Your task to perform on an android device: Open settings on Google Maps Image 0: 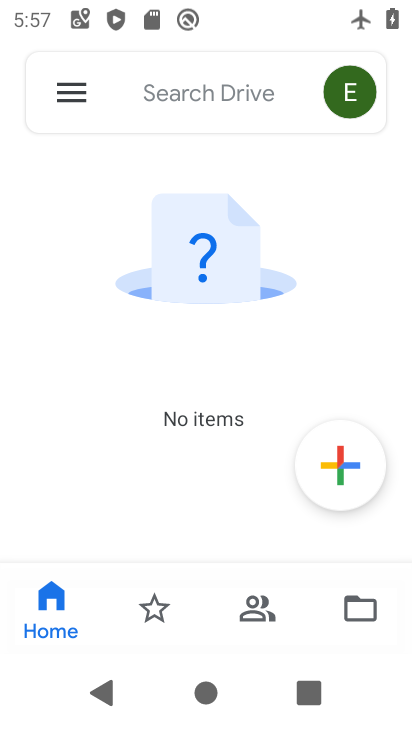
Step 0: press home button
Your task to perform on an android device: Open settings on Google Maps Image 1: 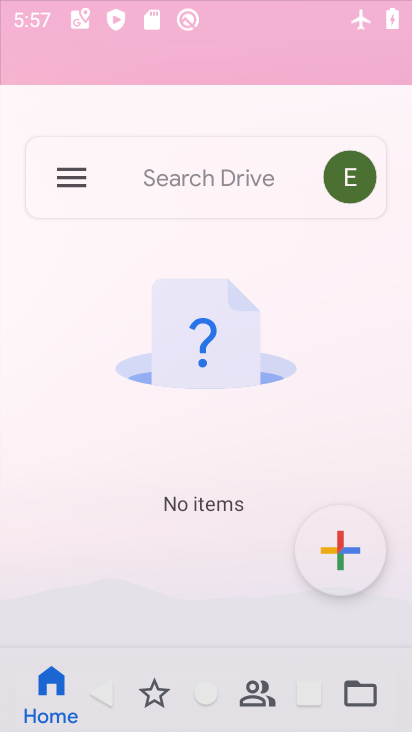
Step 1: drag from (172, 554) to (203, 92)
Your task to perform on an android device: Open settings on Google Maps Image 2: 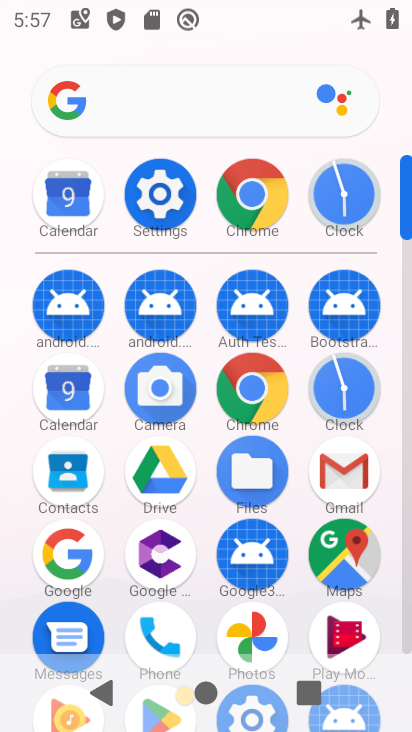
Step 2: click (331, 559)
Your task to perform on an android device: Open settings on Google Maps Image 3: 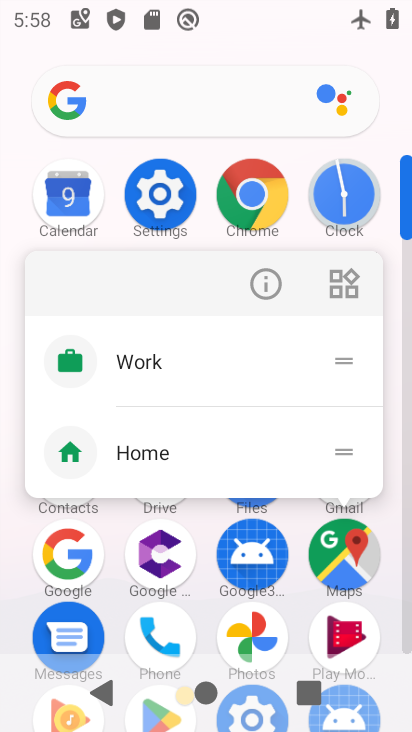
Step 3: click (255, 276)
Your task to perform on an android device: Open settings on Google Maps Image 4: 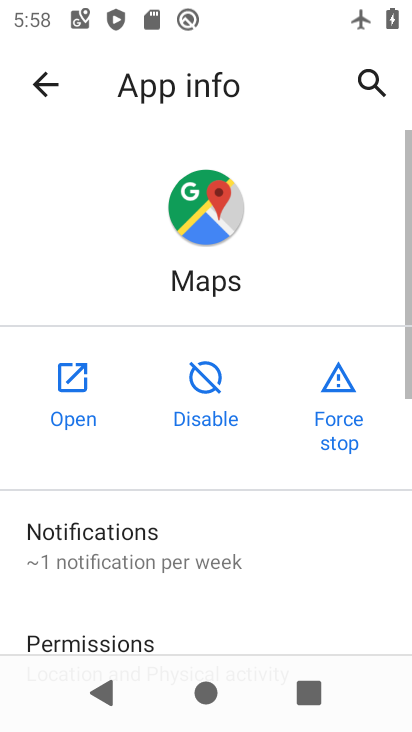
Step 4: click (77, 397)
Your task to perform on an android device: Open settings on Google Maps Image 5: 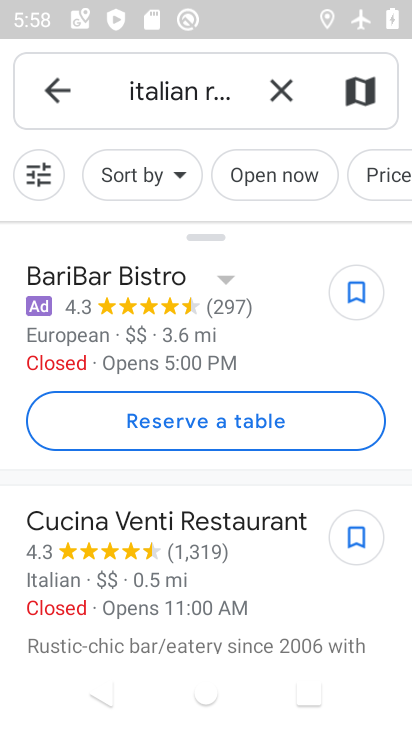
Step 5: drag from (149, 253) to (272, 708)
Your task to perform on an android device: Open settings on Google Maps Image 6: 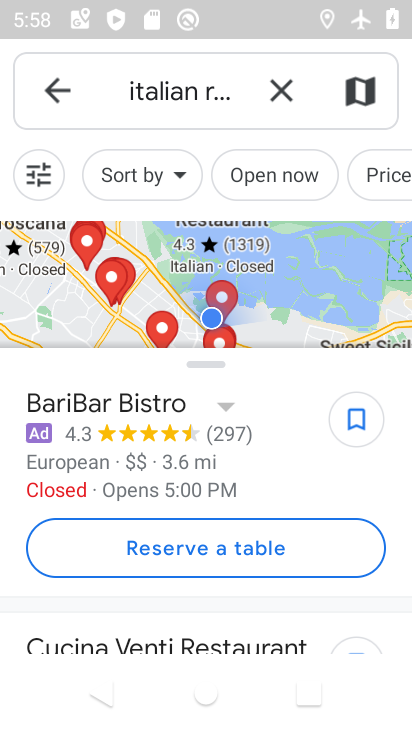
Step 6: drag from (238, 421) to (270, 185)
Your task to perform on an android device: Open settings on Google Maps Image 7: 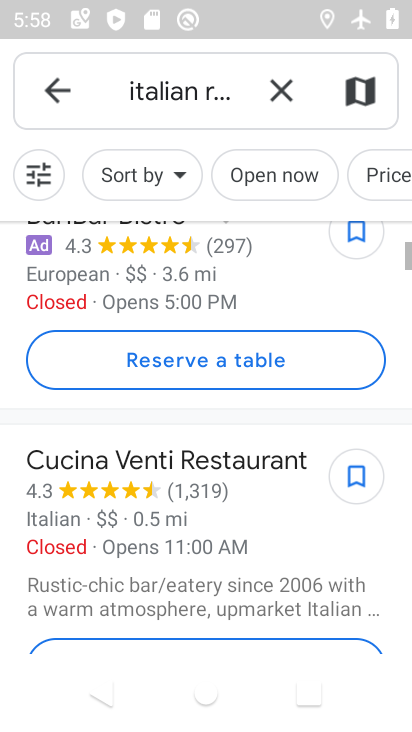
Step 7: drag from (253, 291) to (316, 642)
Your task to perform on an android device: Open settings on Google Maps Image 8: 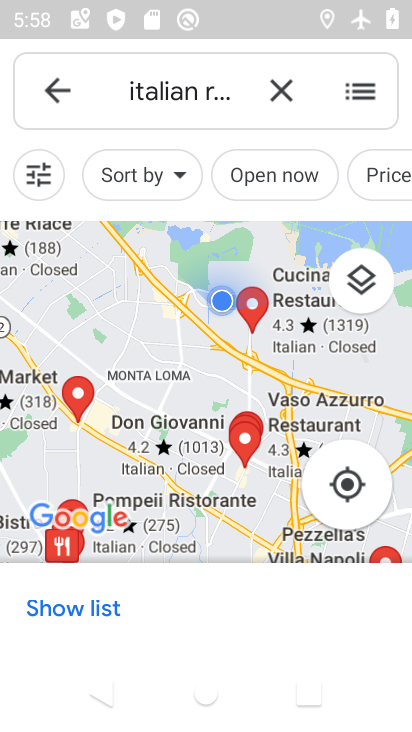
Step 8: click (53, 90)
Your task to perform on an android device: Open settings on Google Maps Image 9: 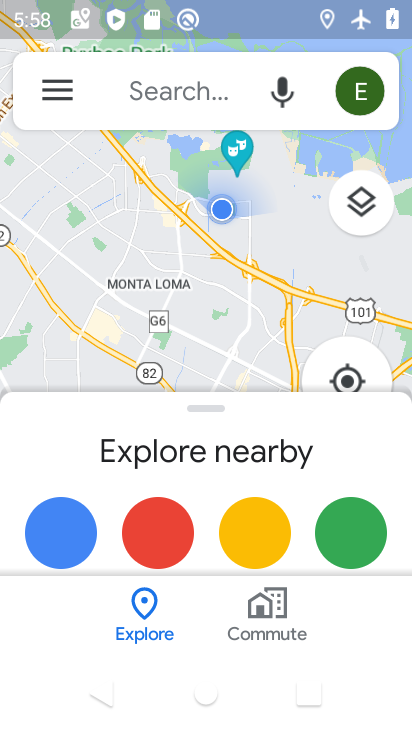
Step 9: click (52, 113)
Your task to perform on an android device: Open settings on Google Maps Image 10: 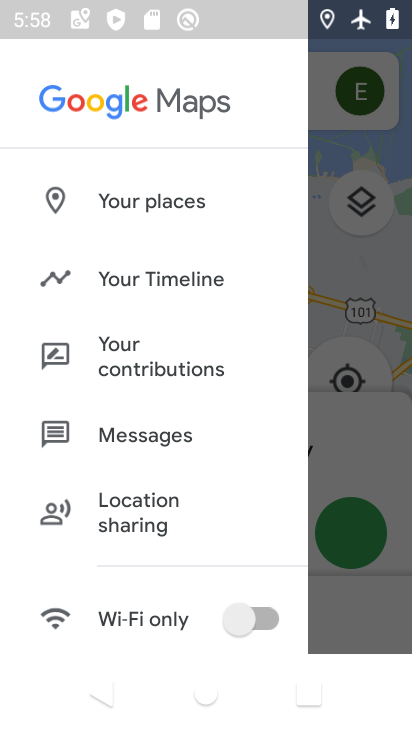
Step 10: drag from (141, 583) to (205, 7)
Your task to perform on an android device: Open settings on Google Maps Image 11: 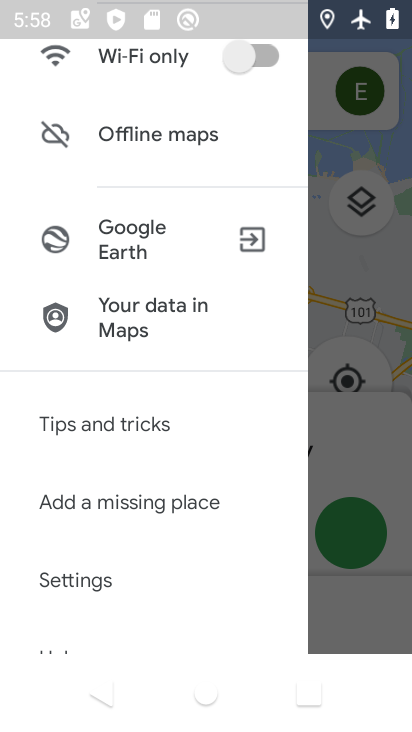
Step 11: click (97, 569)
Your task to perform on an android device: Open settings on Google Maps Image 12: 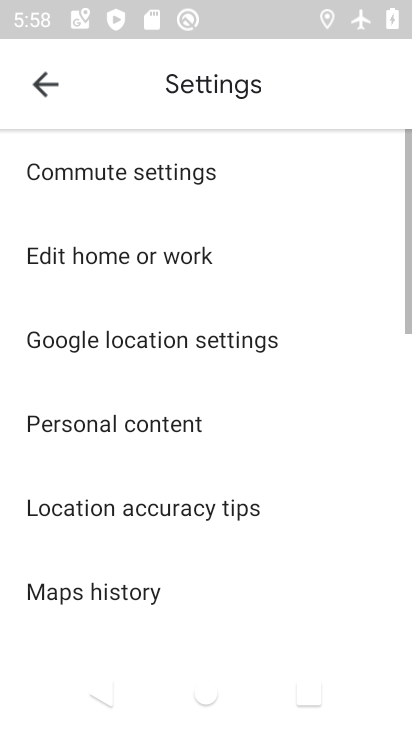
Step 12: task complete